Your task to perform on an android device: Open Reddit.com Image 0: 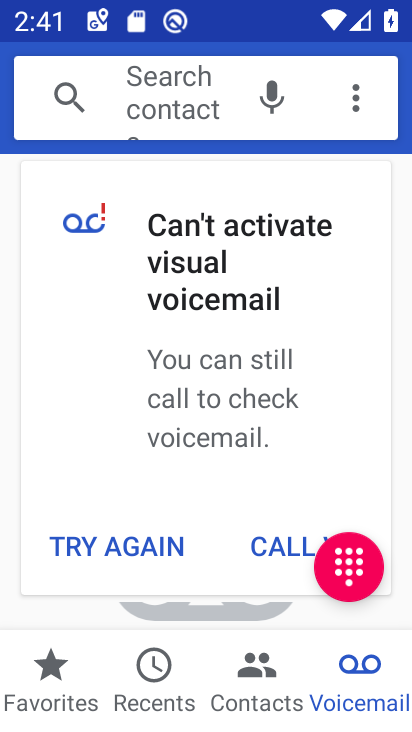
Step 0: press home button
Your task to perform on an android device: Open Reddit.com Image 1: 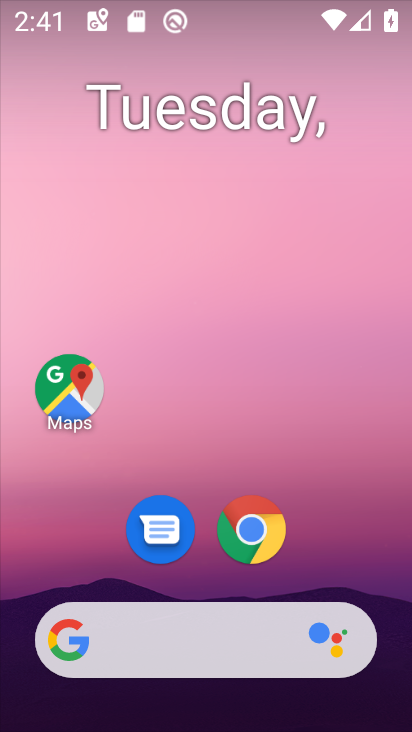
Step 1: click (258, 530)
Your task to perform on an android device: Open Reddit.com Image 2: 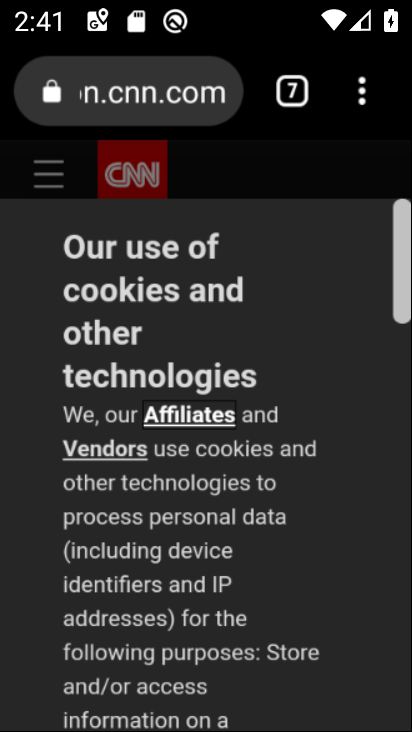
Step 2: click (381, 97)
Your task to perform on an android device: Open Reddit.com Image 3: 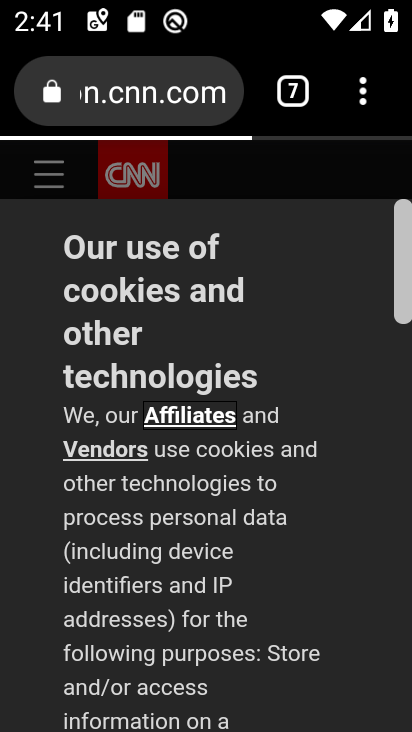
Step 3: click (360, 99)
Your task to perform on an android device: Open Reddit.com Image 4: 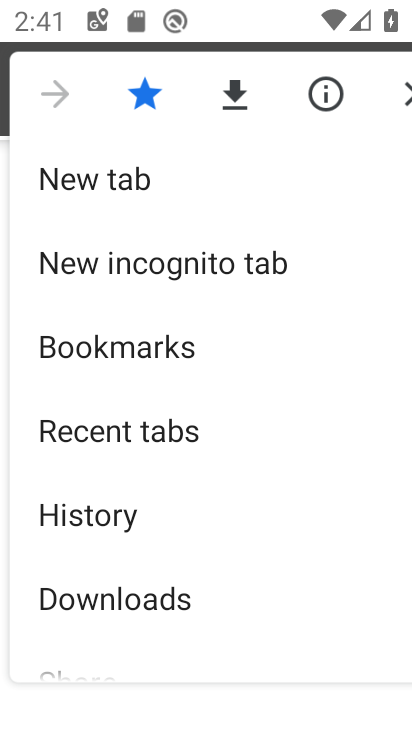
Step 4: click (63, 179)
Your task to perform on an android device: Open Reddit.com Image 5: 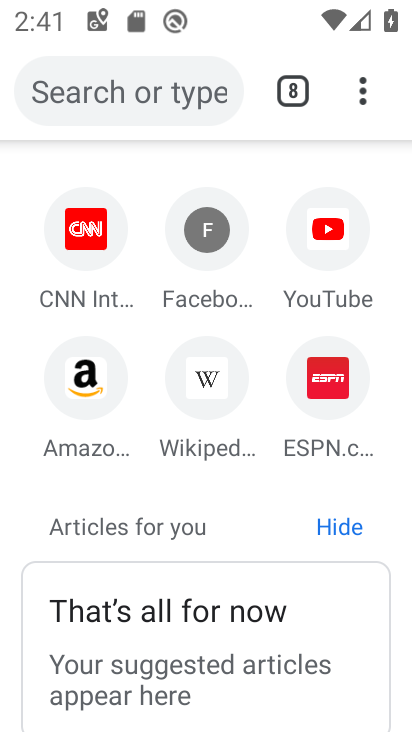
Step 5: click (139, 75)
Your task to perform on an android device: Open Reddit.com Image 6: 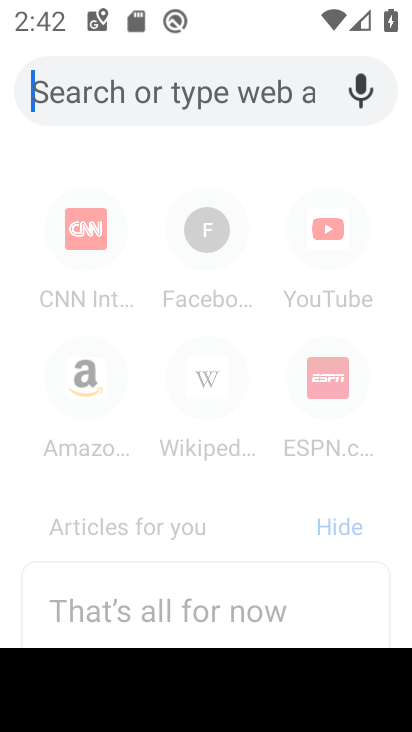
Step 6: type "Reddit.com"
Your task to perform on an android device: Open Reddit.com Image 7: 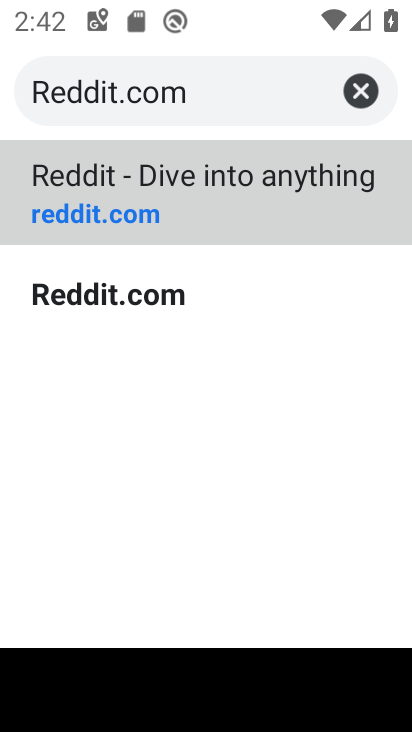
Step 7: click (248, 209)
Your task to perform on an android device: Open Reddit.com Image 8: 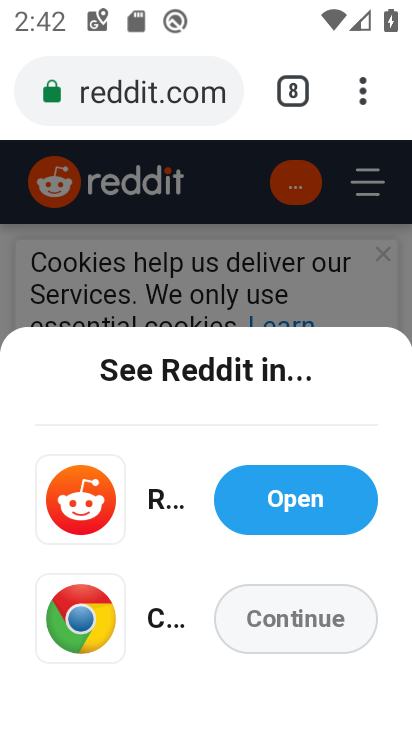
Step 8: task complete